Your task to perform on an android device: open wifi settings Image 0: 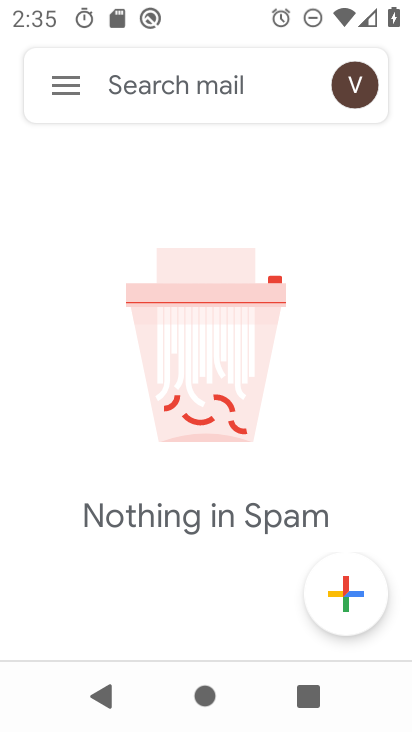
Step 0: press back button
Your task to perform on an android device: open wifi settings Image 1: 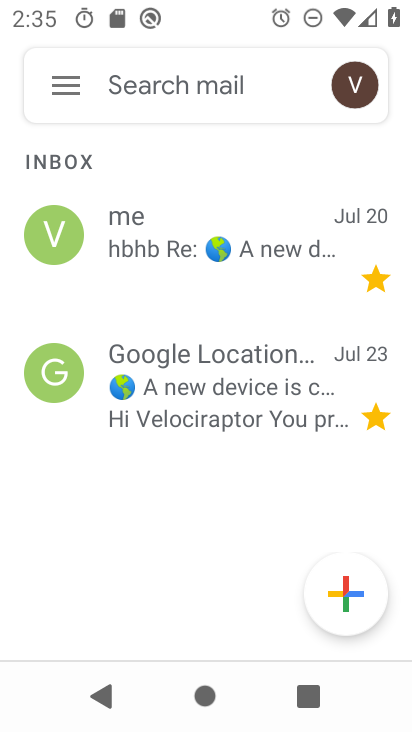
Step 1: press back button
Your task to perform on an android device: open wifi settings Image 2: 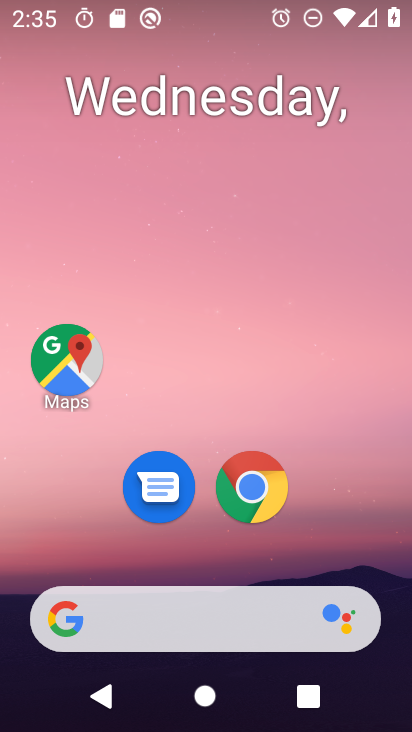
Step 2: drag from (160, 17) to (219, 638)
Your task to perform on an android device: open wifi settings Image 3: 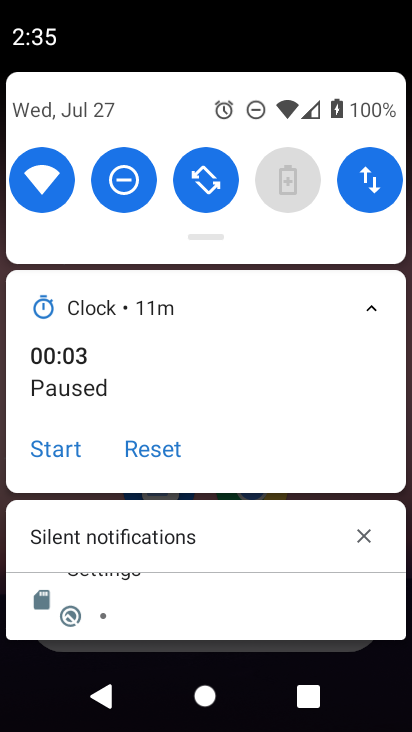
Step 3: click (47, 178)
Your task to perform on an android device: open wifi settings Image 4: 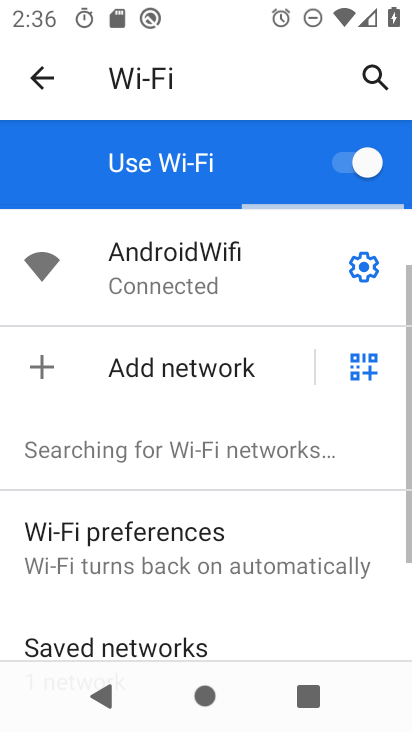
Step 4: task complete